Your task to perform on an android device: Open Chrome and go to the settings page Image 0: 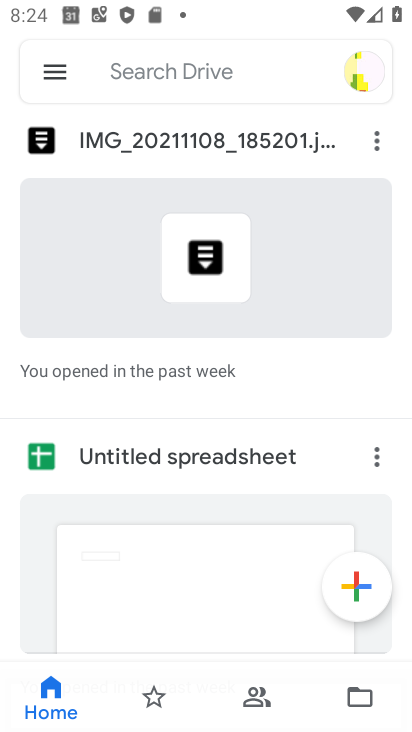
Step 0: press home button
Your task to perform on an android device: Open Chrome and go to the settings page Image 1: 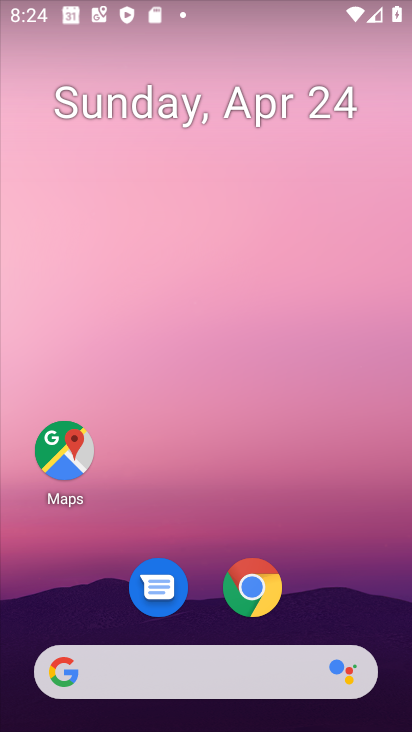
Step 1: click (261, 605)
Your task to perform on an android device: Open Chrome and go to the settings page Image 2: 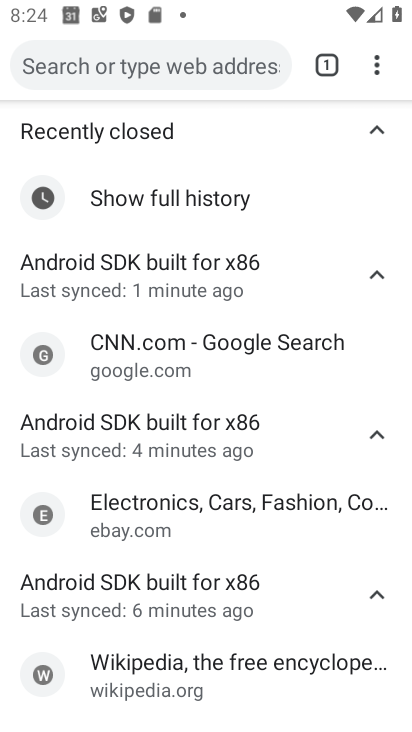
Step 2: click (375, 66)
Your task to perform on an android device: Open Chrome and go to the settings page Image 3: 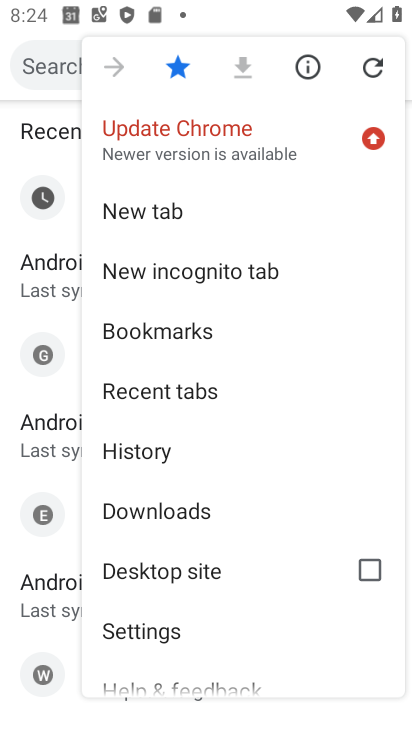
Step 3: click (182, 623)
Your task to perform on an android device: Open Chrome and go to the settings page Image 4: 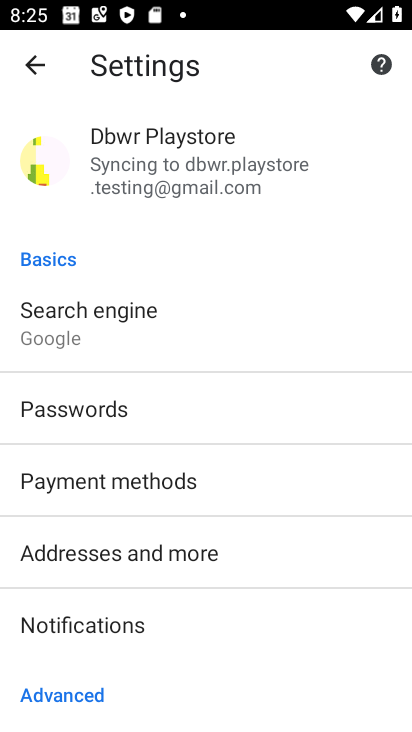
Step 4: task complete